Your task to perform on an android device: turn off priority inbox in the gmail app Image 0: 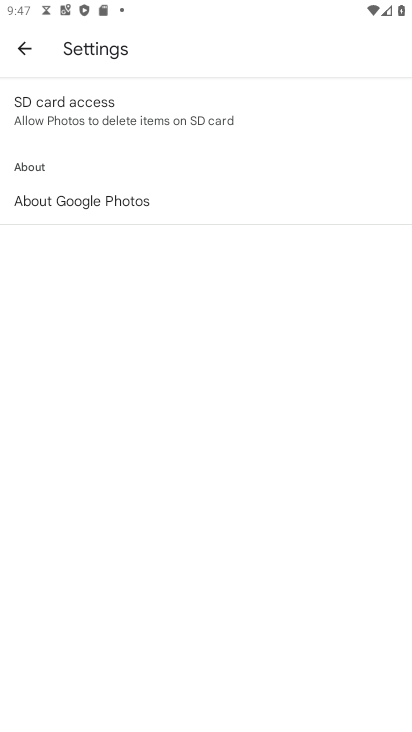
Step 0: press home button
Your task to perform on an android device: turn off priority inbox in the gmail app Image 1: 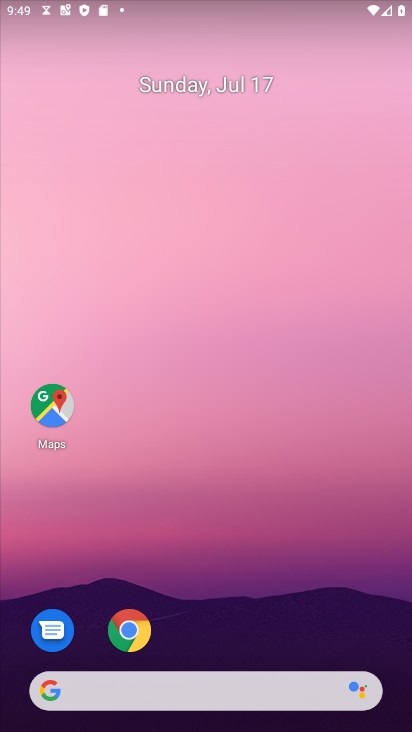
Step 1: drag from (244, 695) to (260, 2)
Your task to perform on an android device: turn off priority inbox in the gmail app Image 2: 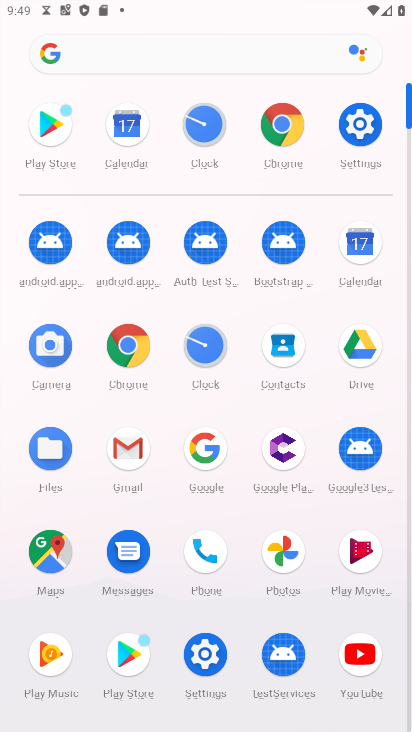
Step 2: click (127, 446)
Your task to perform on an android device: turn off priority inbox in the gmail app Image 3: 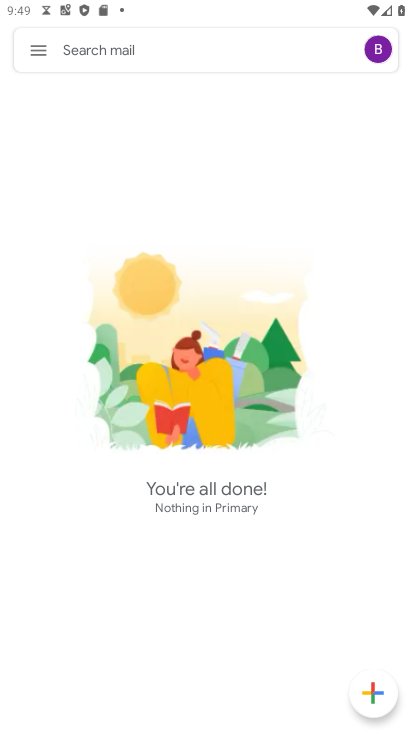
Step 3: click (379, 54)
Your task to perform on an android device: turn off priority inbox in the gmail app Image 4: 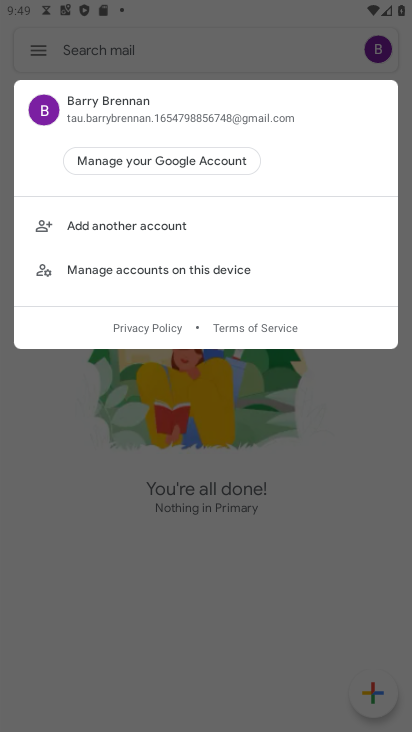
Step 4: click (94, 455)
Your task to perform on an android device: turn off priority inbox in the gmail app Image 5: 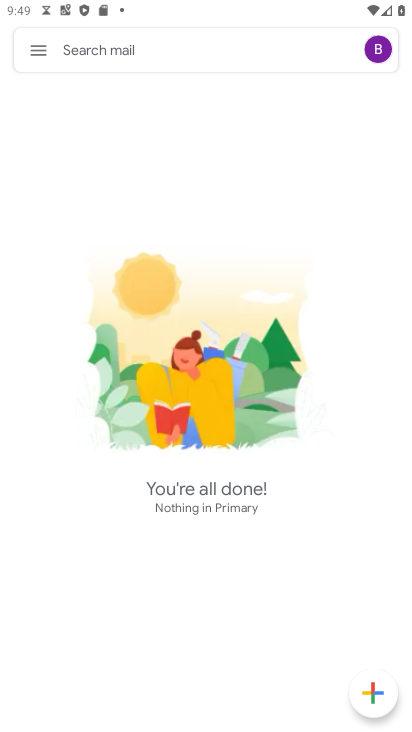
Step 5: click (31, 52)
Your task to perform on an android device: turn off priority inbox in the gmail app Image 6: 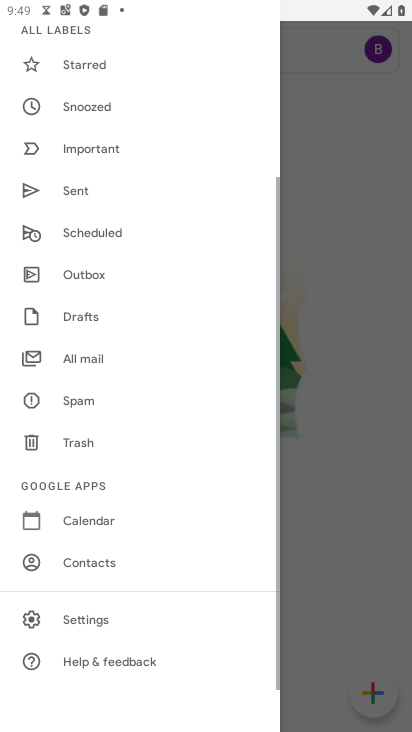
Step 6: click (99, 632)
Your task to perform on an android device: turn off priority inbox in the gmail app Image 7: 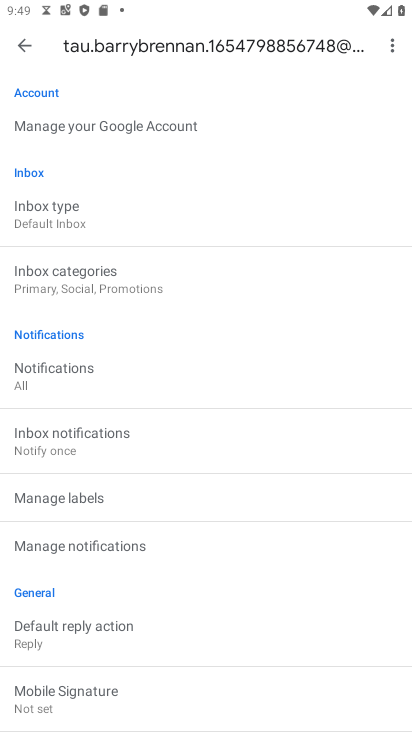
Step 7: task complete